Your task to perform on an android device: Find coffee shops on Maps Image 0: 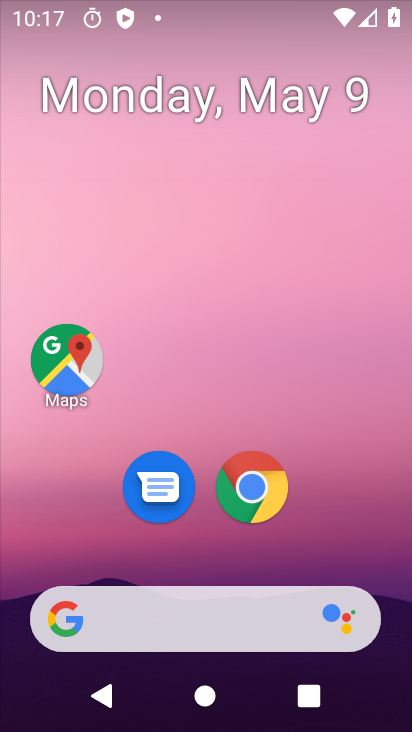
Step 0: click (52, 369)
Your task to perform on an android device: Find coffee shops on Maps Image 1: 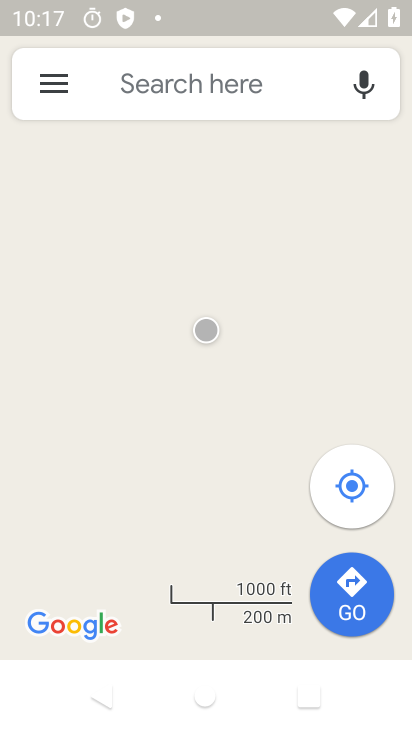
Step 1: click (204, 92)
Your task to perform on an android device: Find coffee shops on Maps Image 2: 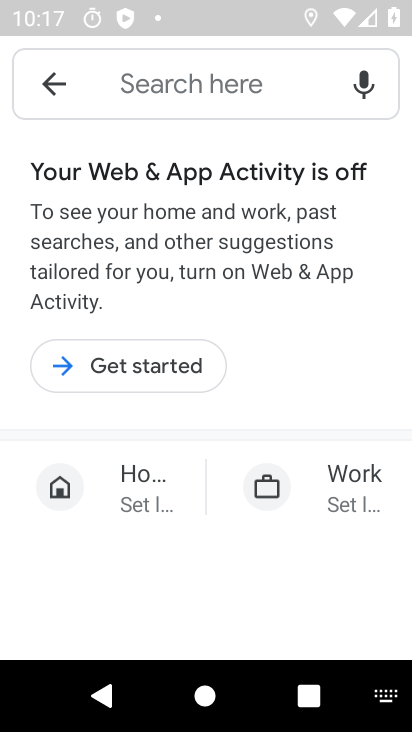
Step 2: click (192, 76)
Your task to perform on an android device: Find coffee shops on Maps Image 3: 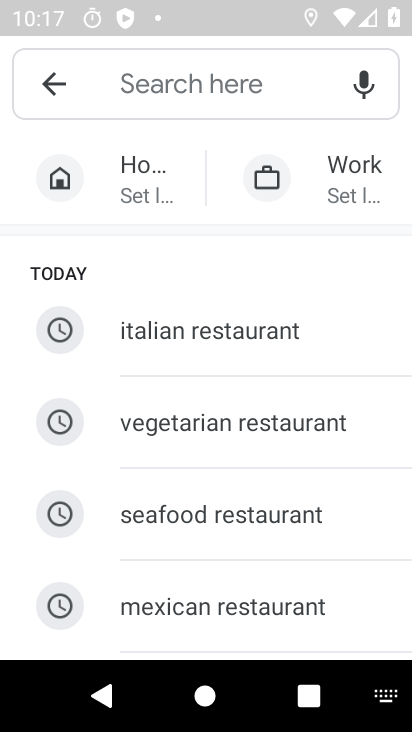
Step 3: drag from (307, 581) to (300, 199)
Your task to perform on an android device: Find coffee shops on Maps Image 4: 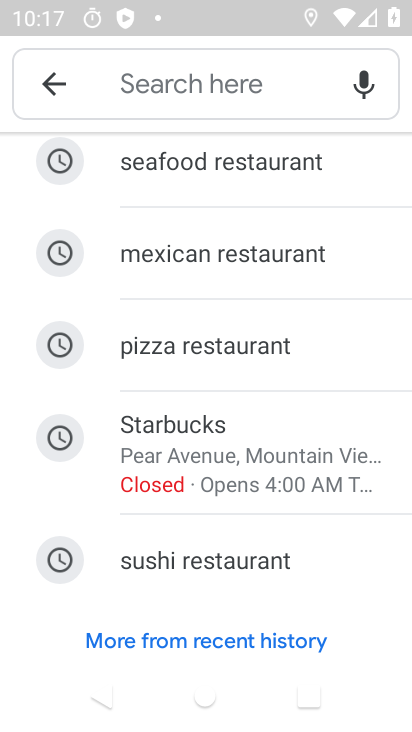
Step 4: drag from (243, 546) to (257, 205)
Your task to perform on an android device: Find coffee shops on Maps Image 5: 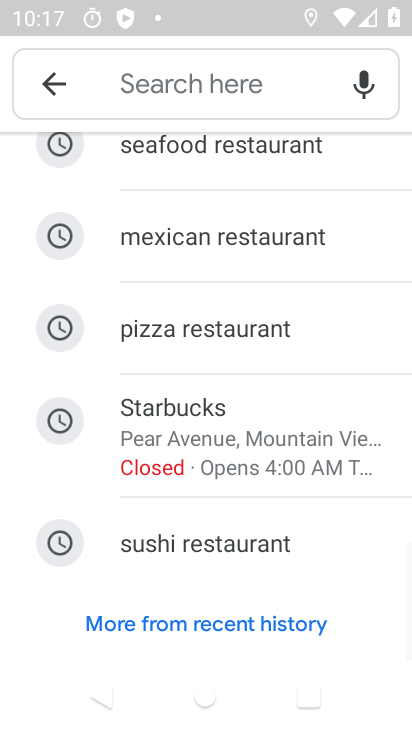
Step 5: click (189, 78)
Your task to perform on an android device: Find coffee shops on Maps Image 6: 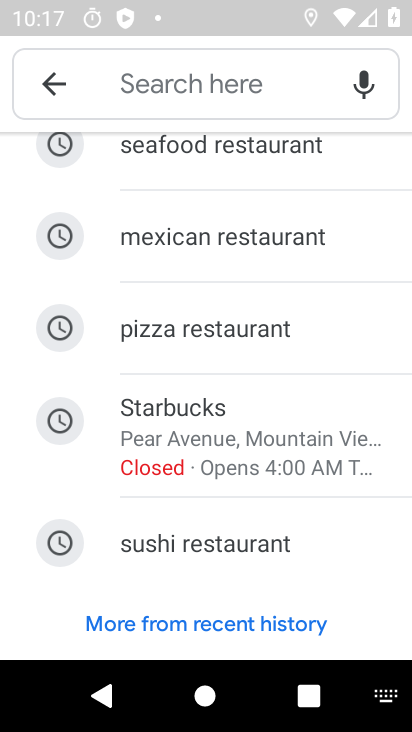
Step 6: type "coffee"
Your task to perform on an android device: Find coffee shops on Maps Image 7: 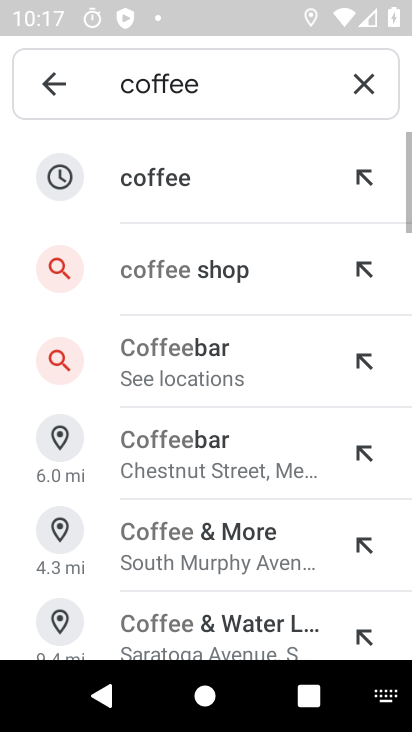
Step 7: click (136, 180)
Your task to perform on an android device: Find coffee shops on Maps Image 8: 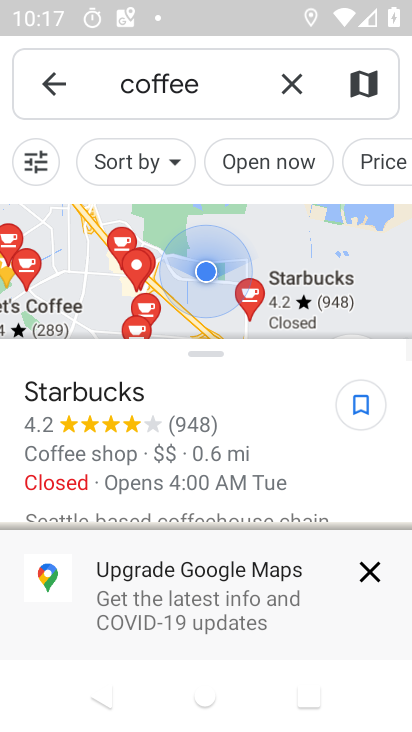
Step 8: task complete